Your task to perform on an android device: Open calendar and show me the third week of next month Image 0: 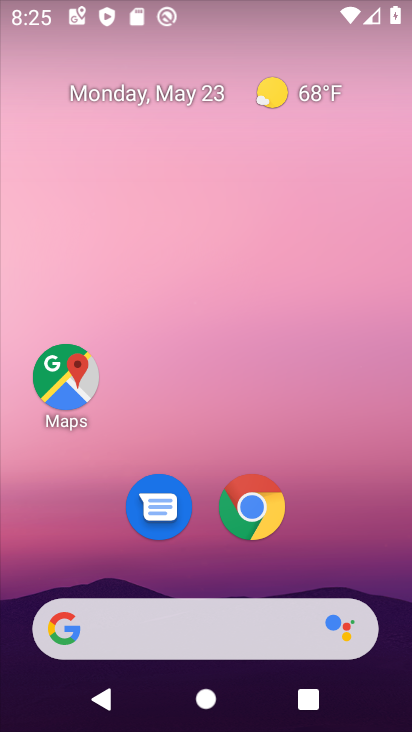
Step 0: drag from (203, 527) to (240, 64)
Your task to perform on an android device: Open calendar and show me the third week of next month Image 1: 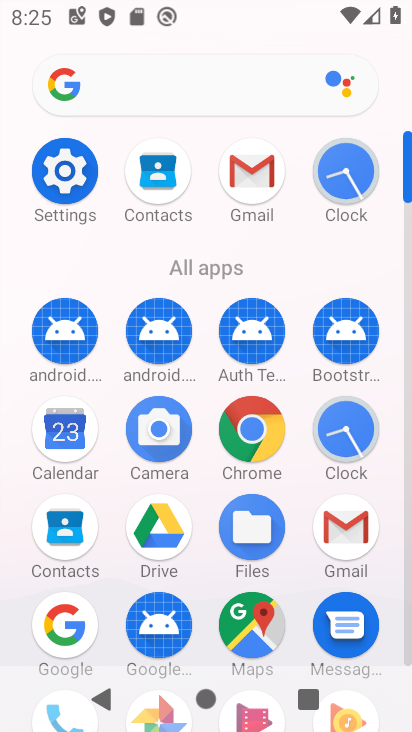
Step 1: click (87, 444)
Your task to perform on an android device: Open calendar and show me the third week of next month Image 2: 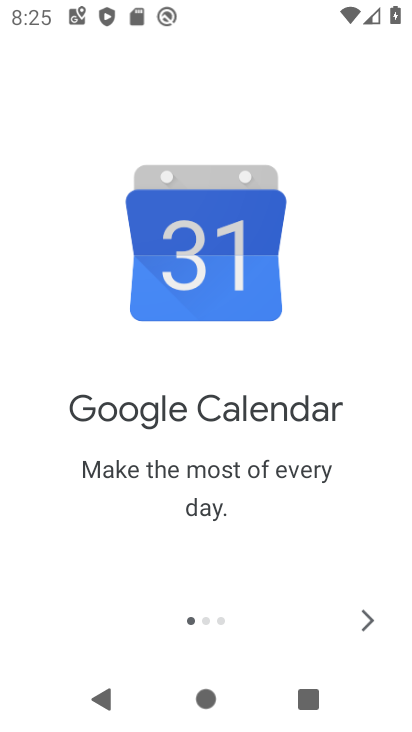
Step 2: click (369, 620)
Your task to perform on an android device: Open calendar and show me the third week of next month Image 3: 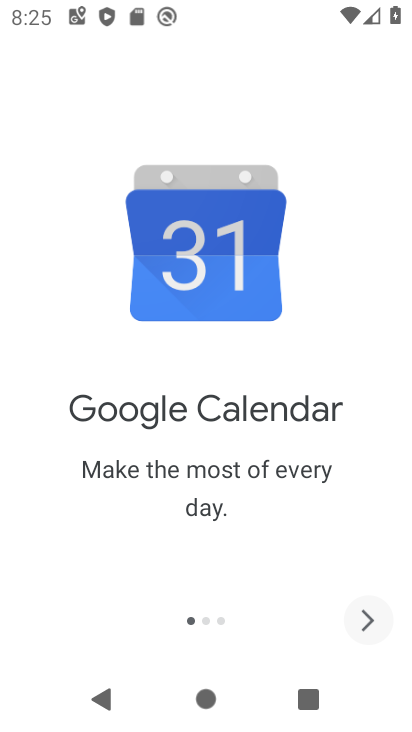
Step 3: click (369, 620)
Your task to perform on an android device: Open calendar and show me the third week of next month Image 4: 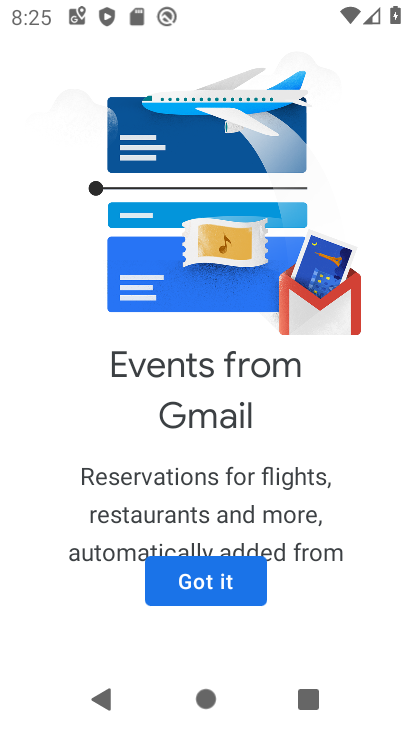
Step 4: click (369, 620)
Your task to perform on an android device: Open calendar and show me the third week of next month Image 5: 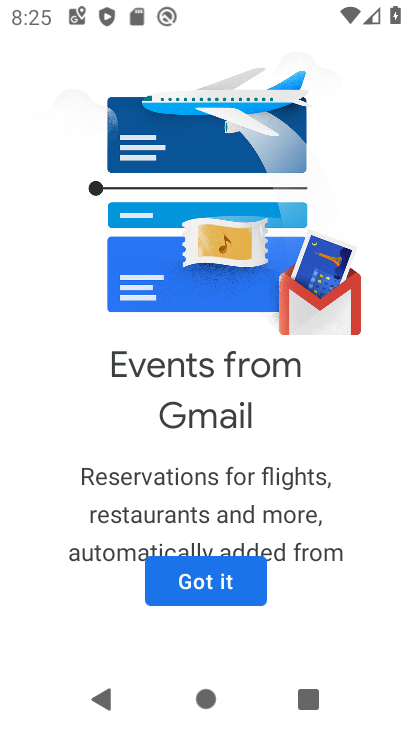
Step 5: click (219, 587)
Your task to perform on an android device: Open calendar and show me the third week of next month Image 6: 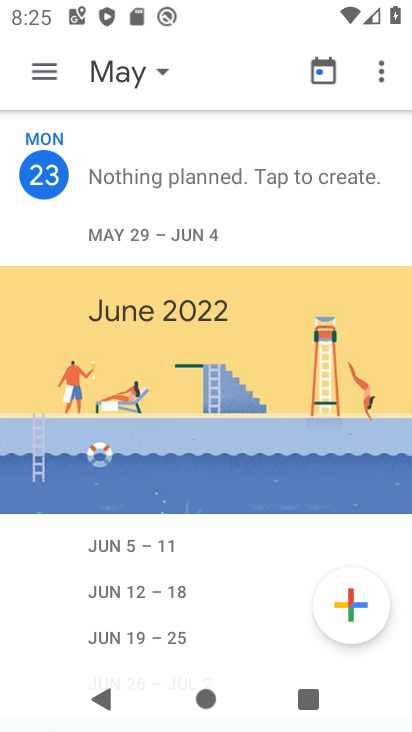
Step 6: click (157, 67)
Your task to perform on an android device: Open calendar and show me the third week of next month Image 7: 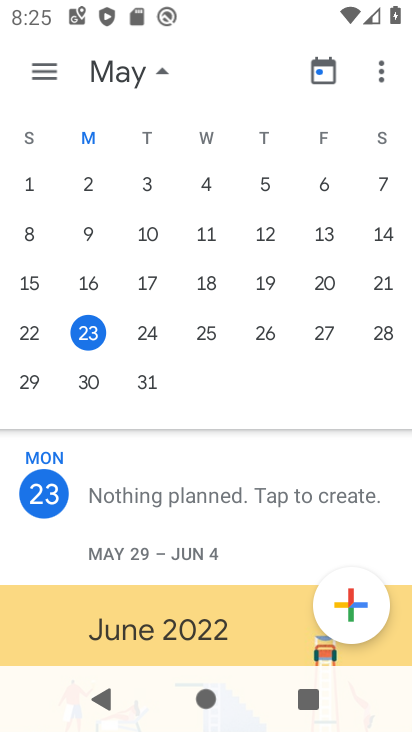
Step 7: drag from (373, 268) to (0, 234)
Your task to perform on an android device: Open calendar and show me the third week of next month Image 8: 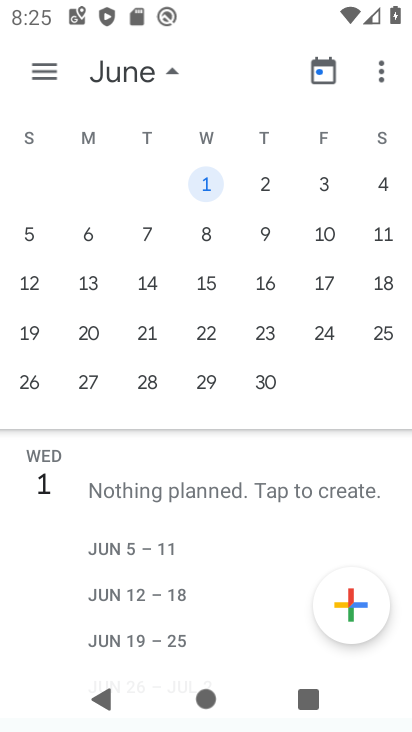
Step 8: click (181, 67)
Your task to perform on an android device: Open calendar and show me the third week of next month Image 9: 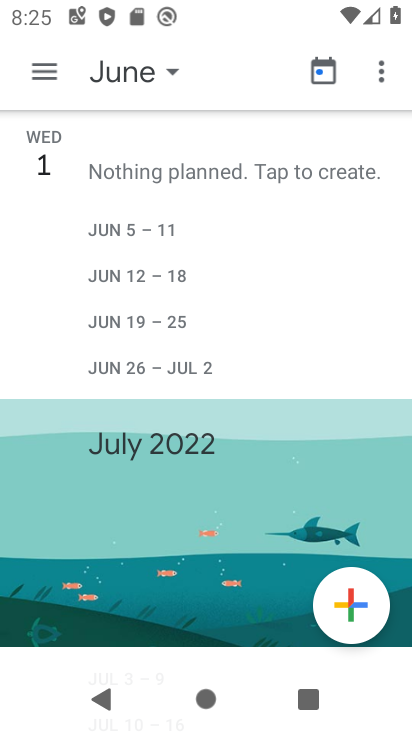
Step 9: click (42, 73)
Your task to perform on an android device: Open calendar and show me the third week of next month Image 10: 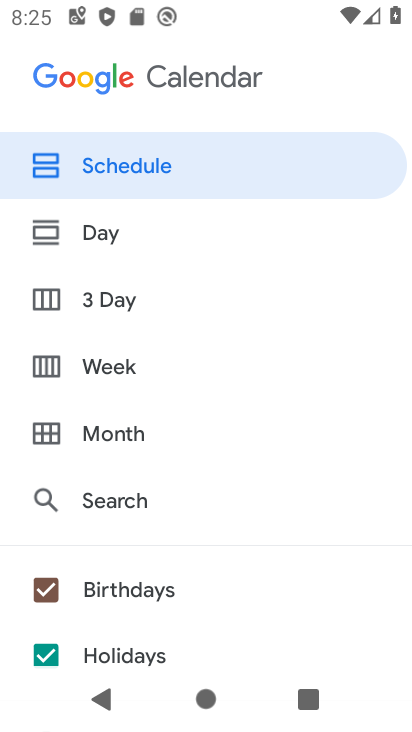
Step 10: click (110, 364)
Your task to perform on an android device: Open calendar and show me the third week of next month Image 11: 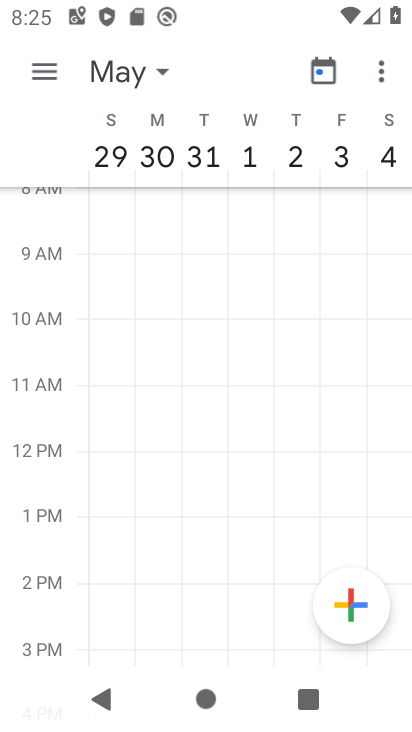
Step 11: task complete